Your task to perform on an android device: turn pop-ups on in chrome Image 0: 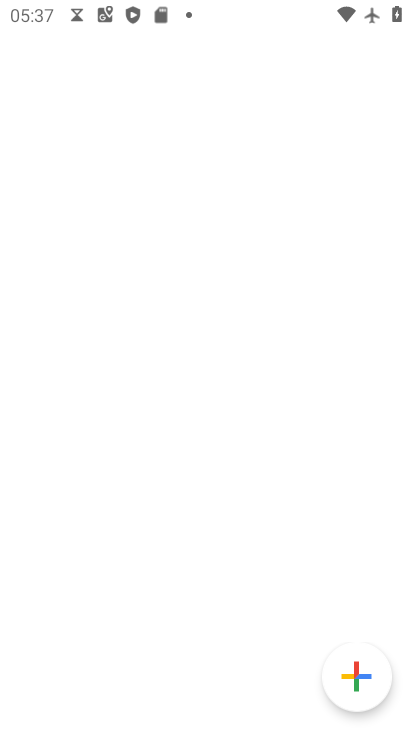
Step 0: click (66, 457)
Your task to perform on an android device: turn pop-ups on in chrome Image 1: 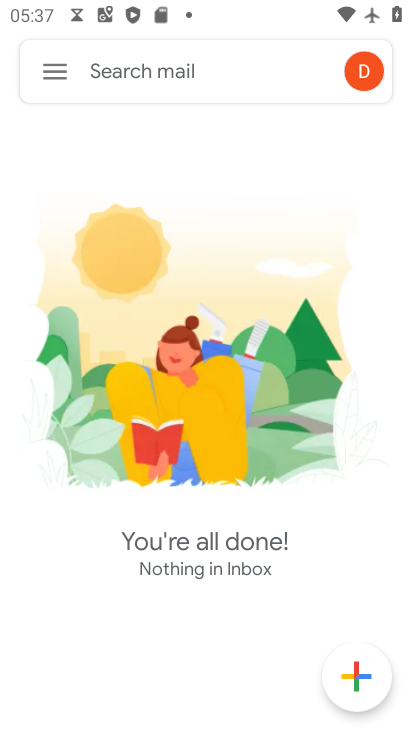
Step 1: press home button
Your task to perform on an android device: turn pop-ups on in chrome Image 2: 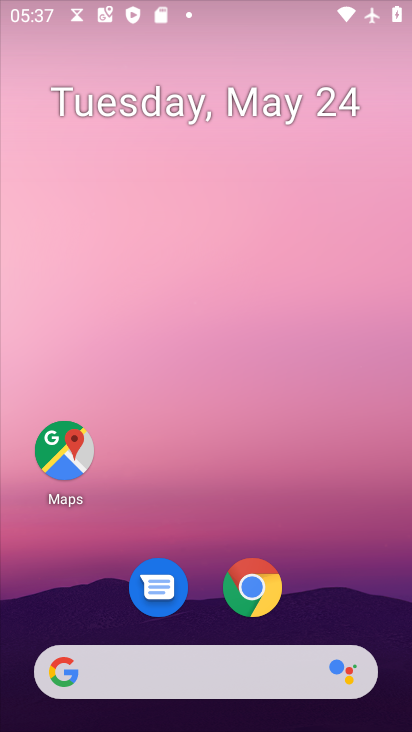
Step 2: click (253, 590)
Your task to perform on an android device: turn pop-ups on in chrome Image 3: 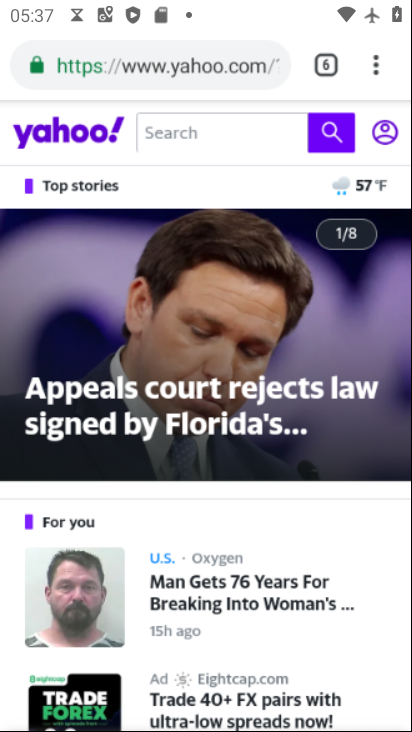
Step 3: click (384, 56)
Your task to perform on an android device: turn pop-ups on in chrome Image 4: 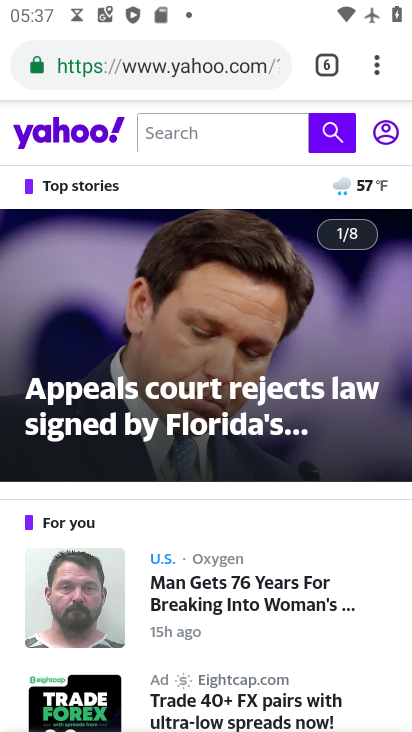
Step 4: click (376, 72)
Your task to perform on an android device: turn pop-ups on in chrome Image 5: 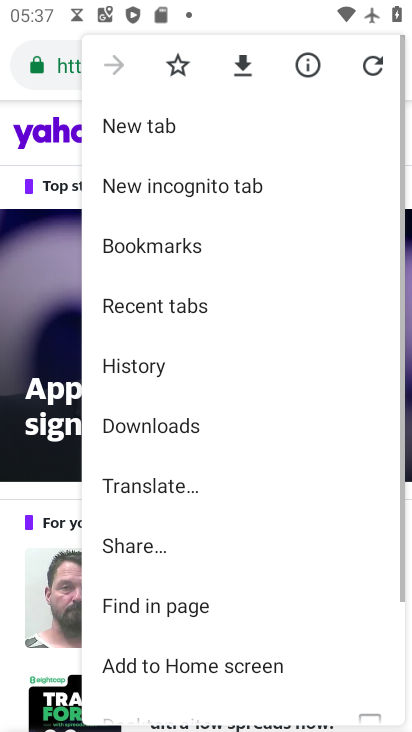
Step 5: drag from (267, 515) to (256, 141)
Your task to perform on an android device: turn pop-ups on in chrome Image 6: 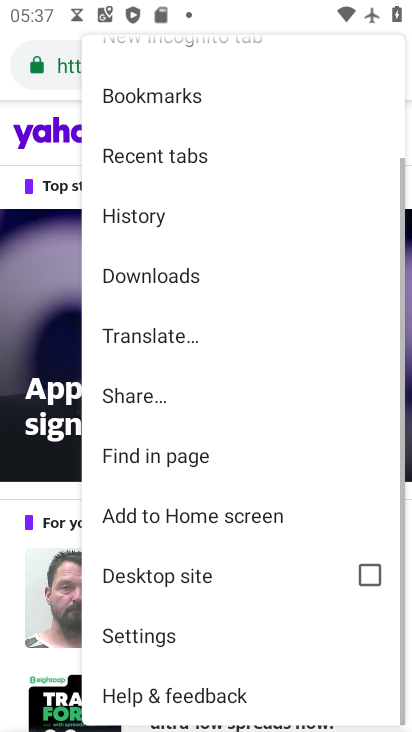
Step 6: click (221, 630)
Your task to perform on an android device: turn pop-ups on in chrome Image 7: 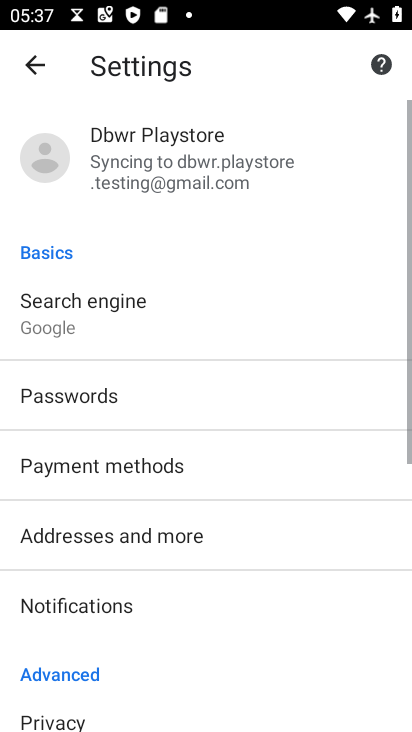
Step 7: drag from (236, 635) to (227, 211)
Your task to perform on an android device: turn pop-ups on in chrome Image 8: 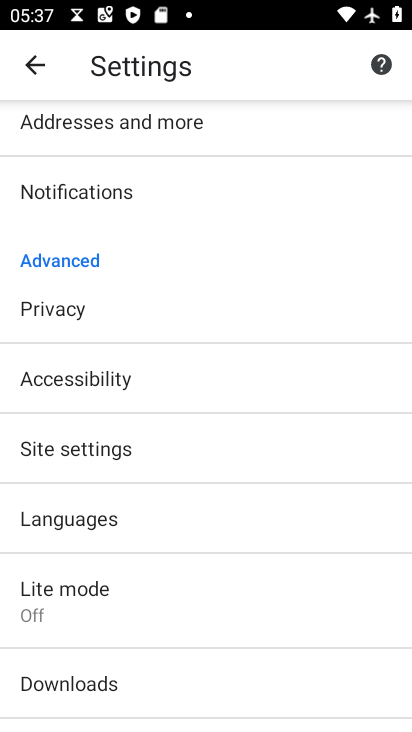
Step 8: click (154, 454)
Your task to perform on an android device: turn pop-ups on in chrome Image 9: 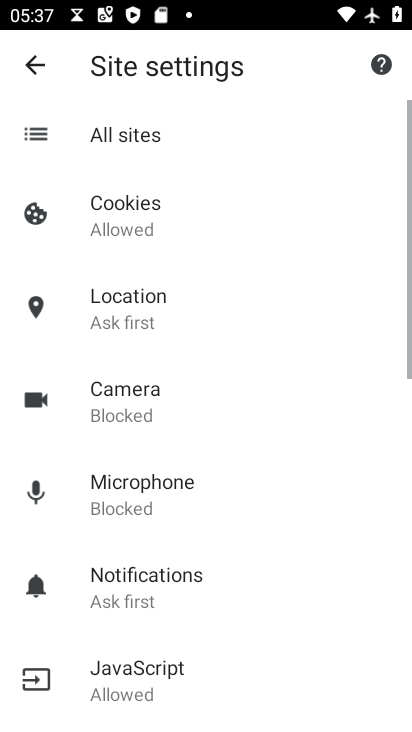
Step 9: drag from (306, 488) to (281, 100)
Your task to perform on an android device: turn pop-ups on in chrome Image 10: 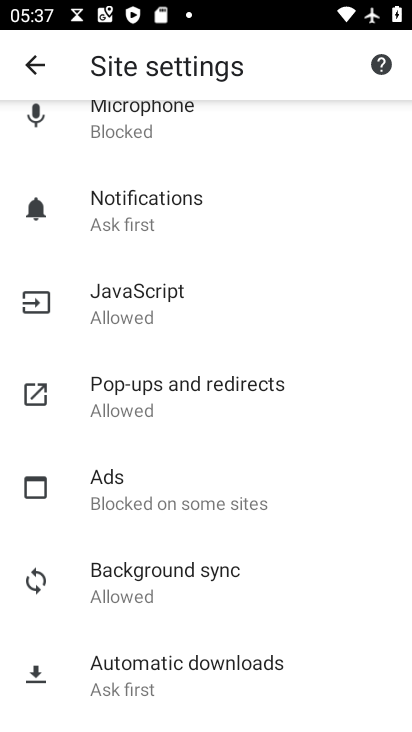
Step 10: click (229, 405)
Your task to perform on an android device: turn pop-ups on in chrome Image 11: 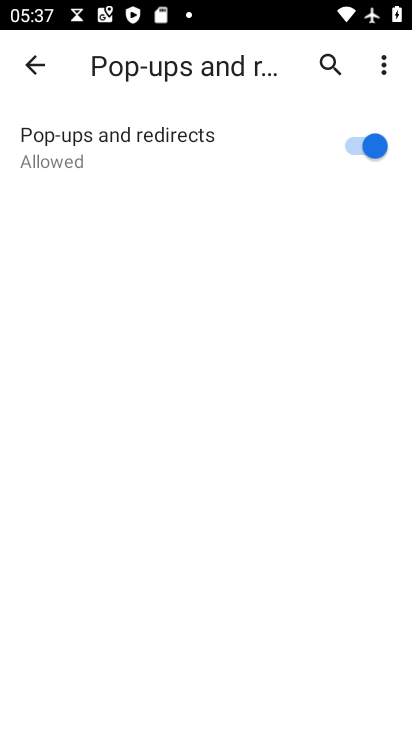
Step 11: task complete